Your task to perform on an android device: Open eBay Image 0: 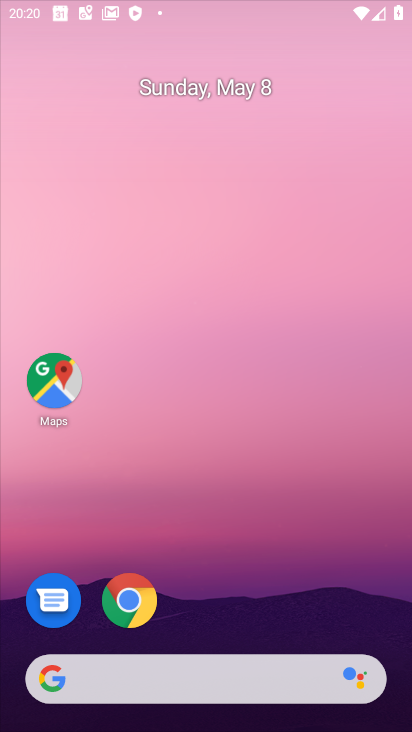
Step 0: drag from (305, 717) to (272, 363)
Your task to perform on an android device: Open eBay Image 1: 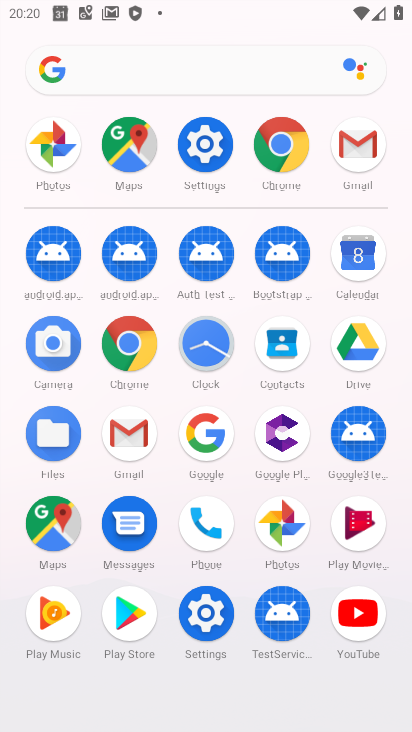
Step 1: click (294, 136)
Your task to perform on an android device: Open eBay Image 2: 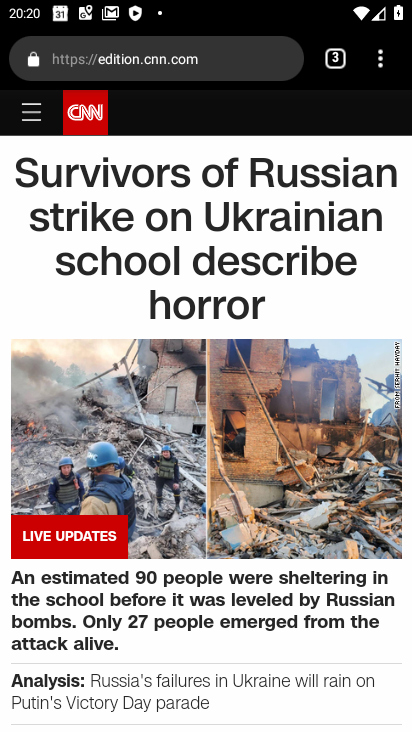
Step 2: click (372, 81)
Your task to perform on an android device: Open eBay Image 3: 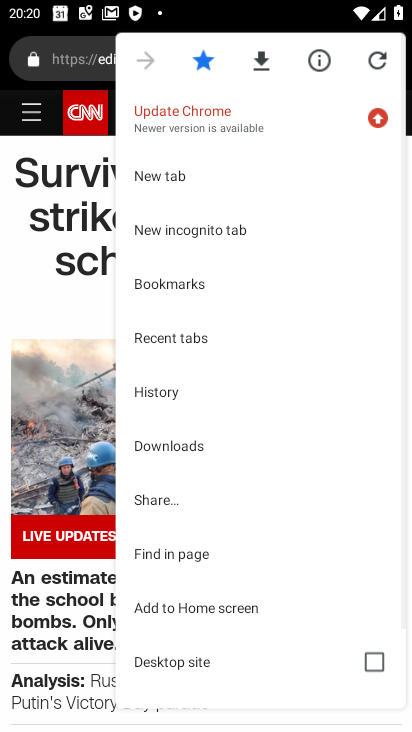
Step 3: click (198, 188)
Your task to perform on an android device: Open eBay Image 4: 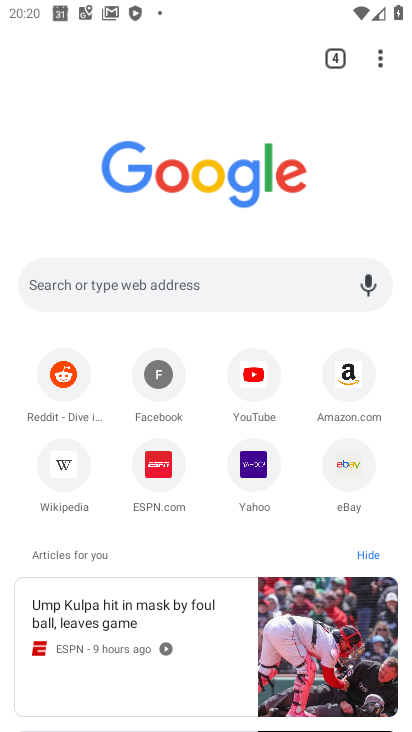
Step 4: click (370, 483)
Your task to perform on an android device: Open eBay Image 5: 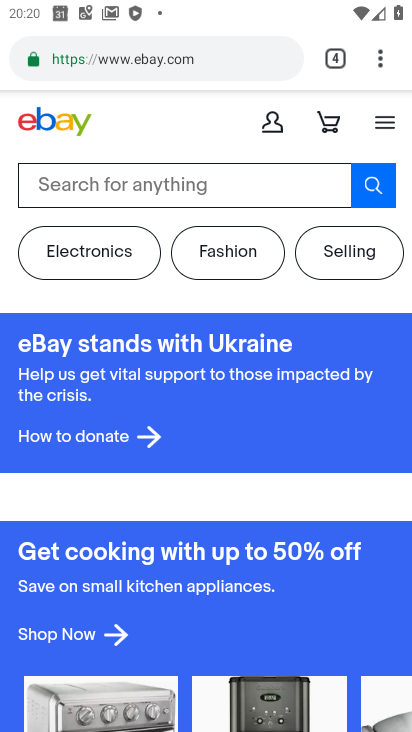
Step 5: task complete